Your task to perform on an android device: Open calendar and show me the fourth week of next month Image 0: 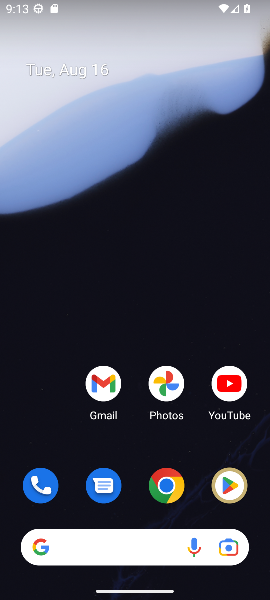
Step 0: drag from (189, 448) to (117, 34)
Your task to perform on an android device: Open calendar and show me the fourth week of next month Image 1: 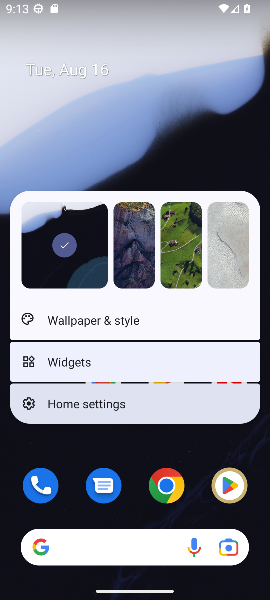
Step 1: click (173, 100)
Your task to perform on an android device: Open calendar and show me the fourth week of next month Image 2: 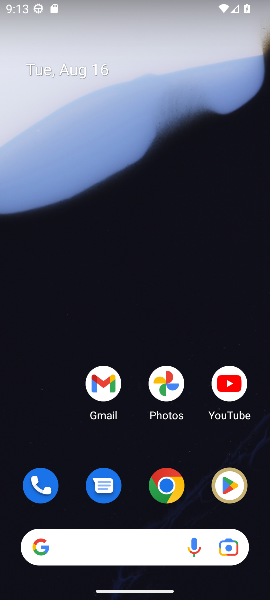
Step 2: drag from (190, 336) to (203, 31)
Your task to perform on an android device: Open calendar and show me the fourth week of next month Image 3: 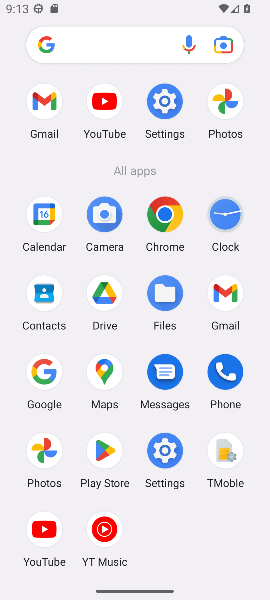
Step 3: click (37, 219)
Your task to perform on an android device: Open calendar and show me the fourth week of next month Image 4: 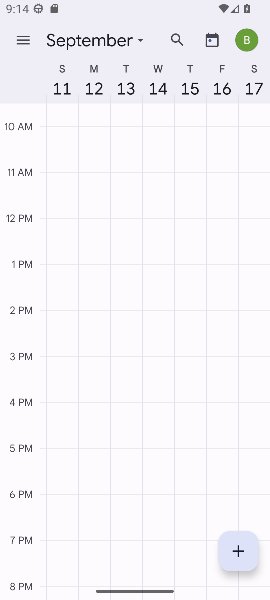
Step 4: click (20, 34)
Your task to perform on an android device: Open calendar and show me the fourth week of next month Image 5: 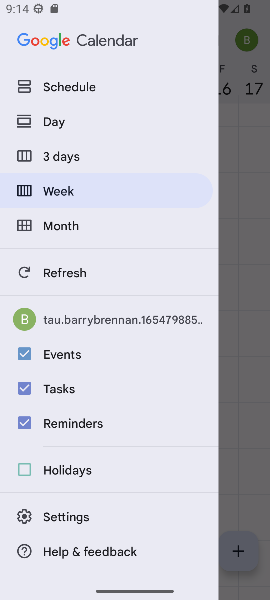
Step 5: click (253, 122)
Your task to perform on an android device: Open calendar and show me the fourth week of next month Image 6: 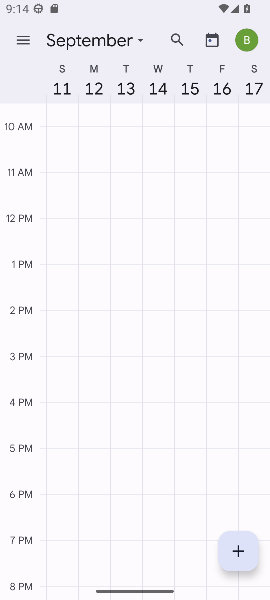
Step 6: click (120, 40)
Your task to perform on an android device: Open calendar and show me the fourth week of next month Image 7: 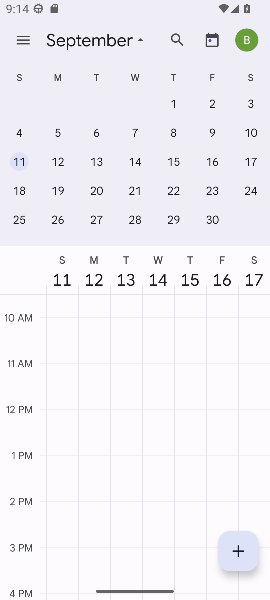
Step 7: click (99, 220)
Your task to perform on an android device: Open calendar and show me the fourth week of next month Image 8: 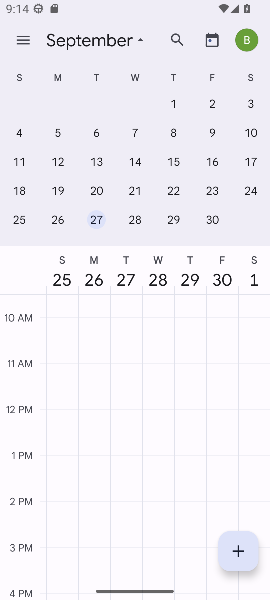
Step 8: task complete